Your task to perform on an android device: Open calendar and show me the fourth week of next month Image 0: 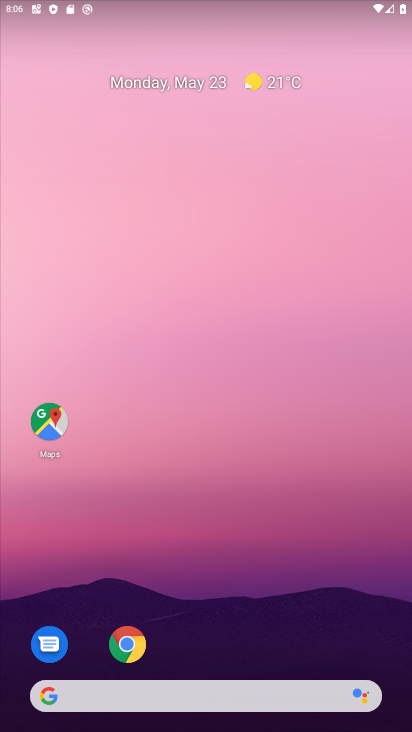
Step 0: drag from (147, 716) to (119, 27)
Your task to perform on an android device: Open calendar and show me the fourth week of next month Image 1: 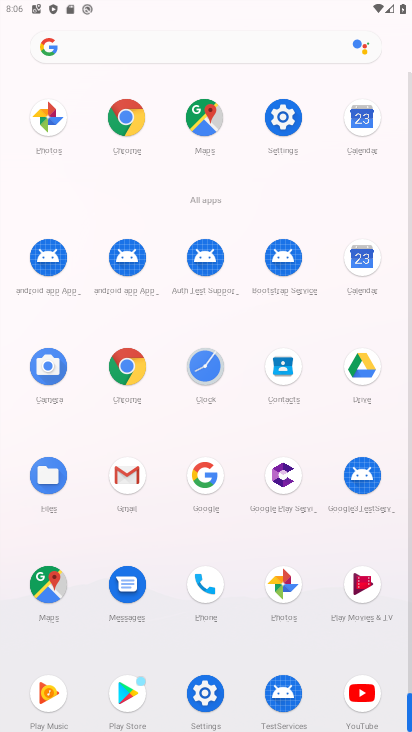
Step 1: click (365, 270)
Your task to perform on an android device: Open calendar and show me the fourth week of next month Image 2: 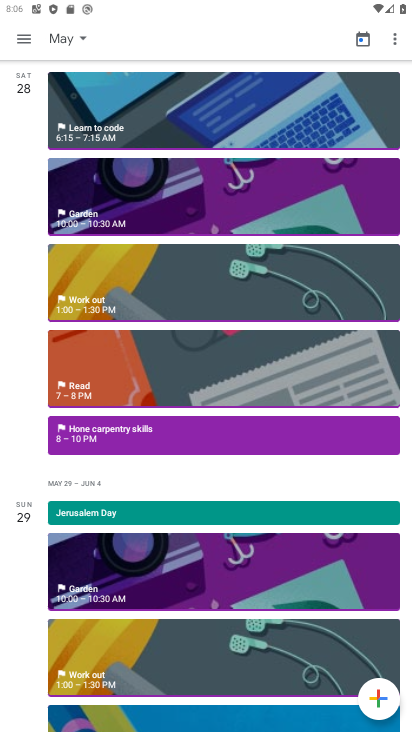
Step 2: click (60, 38)
Your task to perform on an android device: Open calendar and show me the fourth week of next month Image 3: 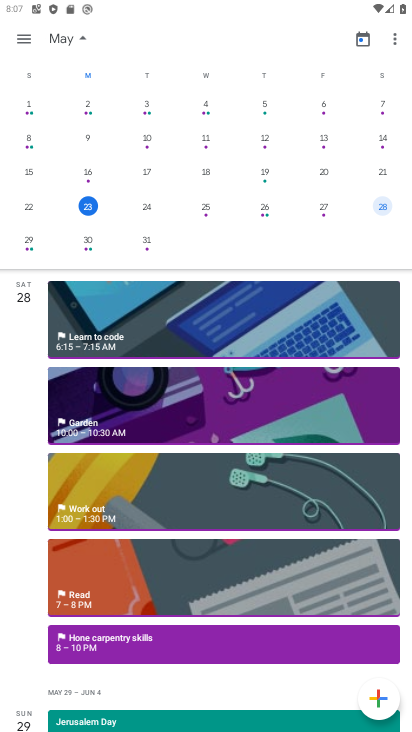
Step 3: drag from (382, 165) to (4, 191)
Your task to perform on an android device: Open calendar and show me the fourth week of next month Image 4: 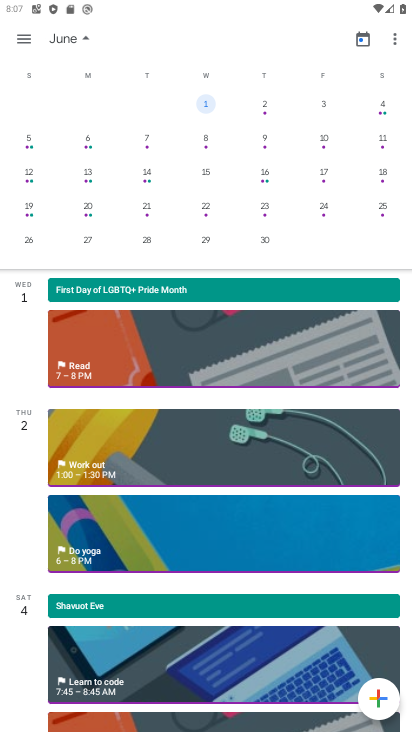
Step 4: click (28, 213)
Your task to perform on an android device: Open calendar and show me the fourth week of next month Image 5: 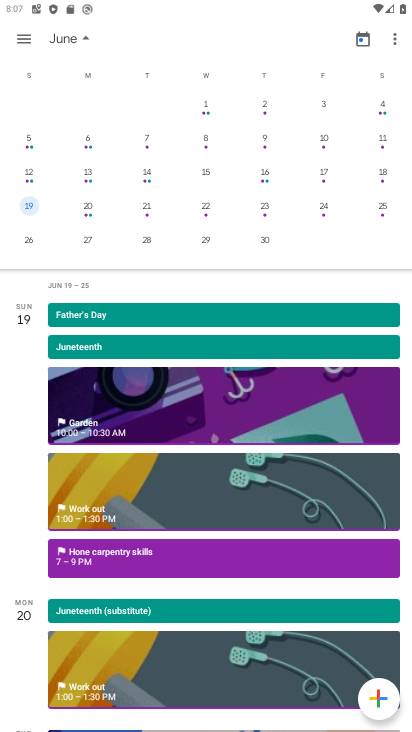
Step 5: task complete